Your task to perform on an android device: snooze an email in the gmail app Image 0: 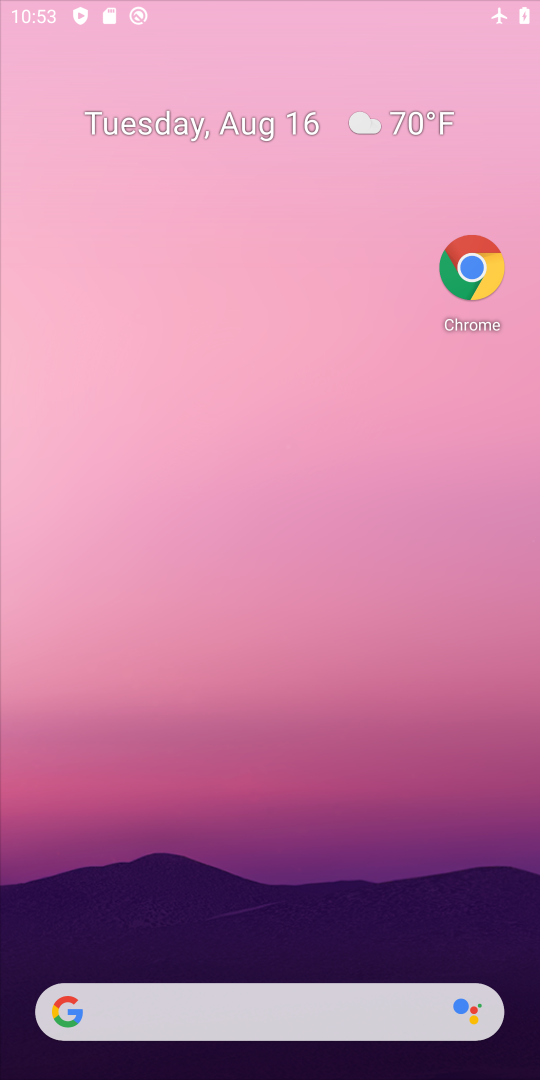
Step 0: press back button
Your task to perform on an android device: snooze an email in the gmail app Image 1: 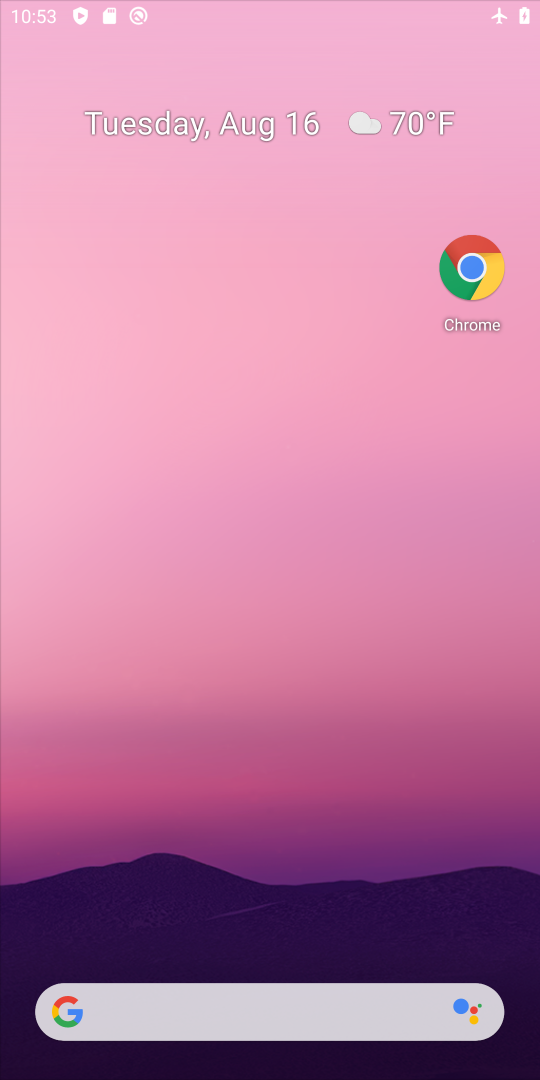
Step 1: drag from (242, 936) to (315, 53)
Your task to perform on an android device: snooze an email in the gmail app Image 2: 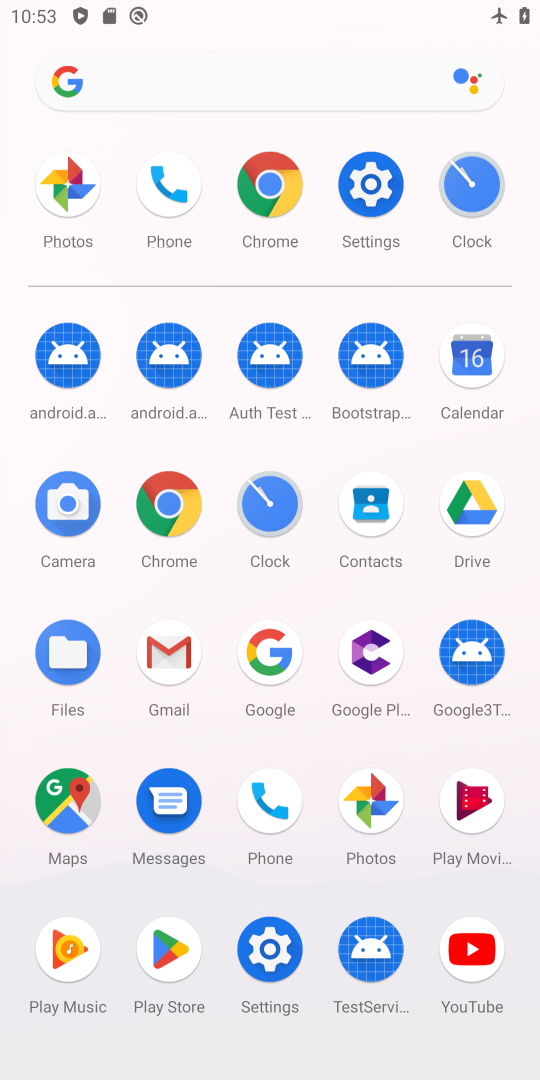
Step 2: click (155, 693)
Your task to perform on an android device: snooze an email in the gmail app Image 3: 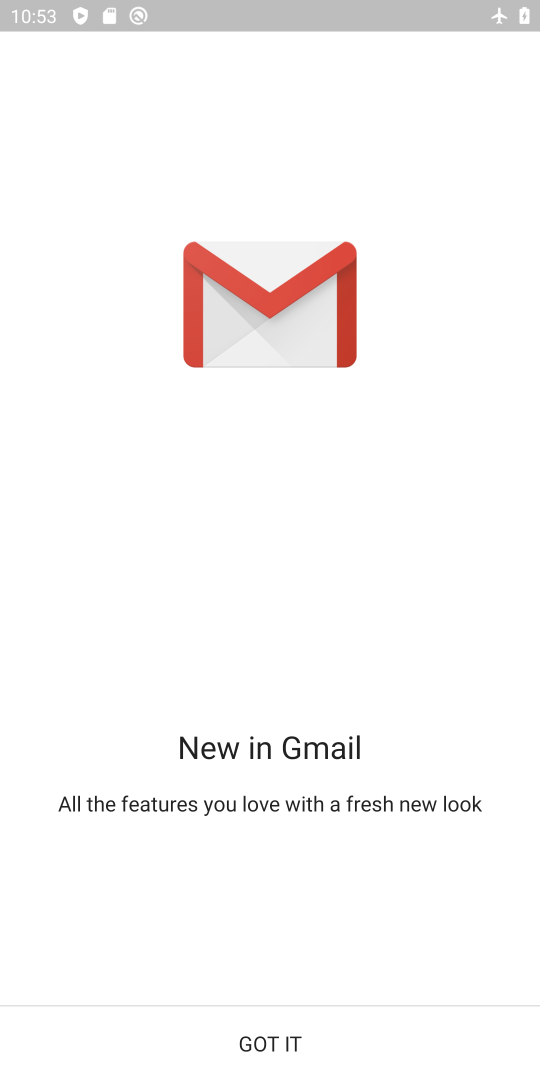
Step 3: click (263, 1021)
Your task to perform on an android device: snooze an email in the gmail app Image 4: 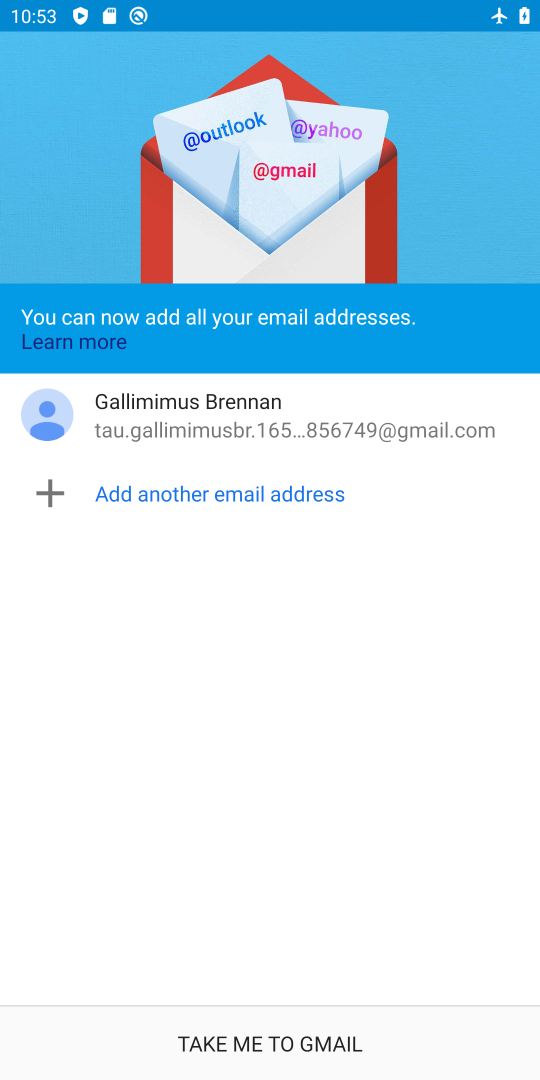
Step 4: click (280, 1060)
Your task to perform on an android device: snooze an email in the gmail app Image 5: 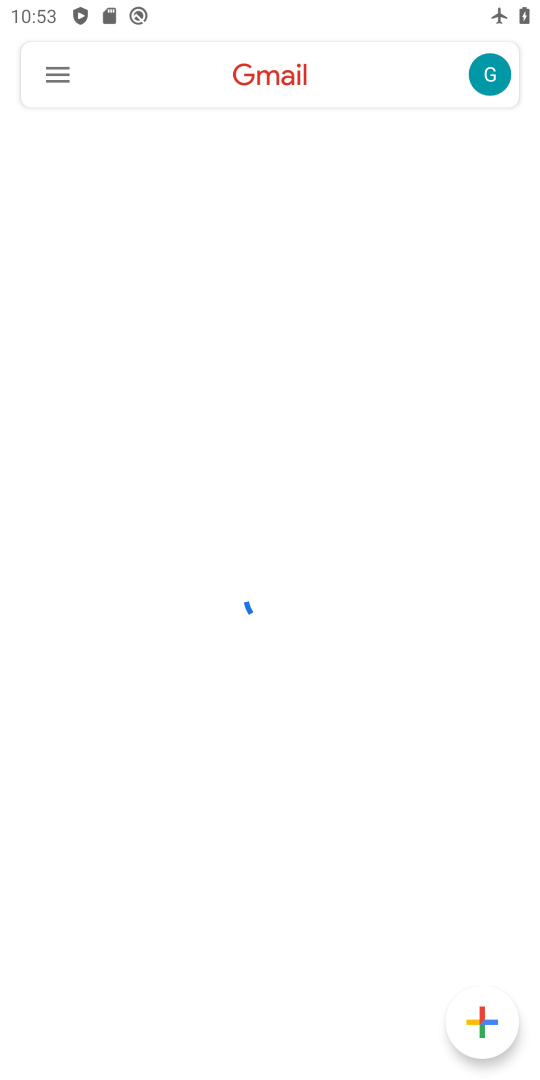
Step 5: click (63, 77)
Your task to perform on an android device: snooze an email in the gmail app Image 6: 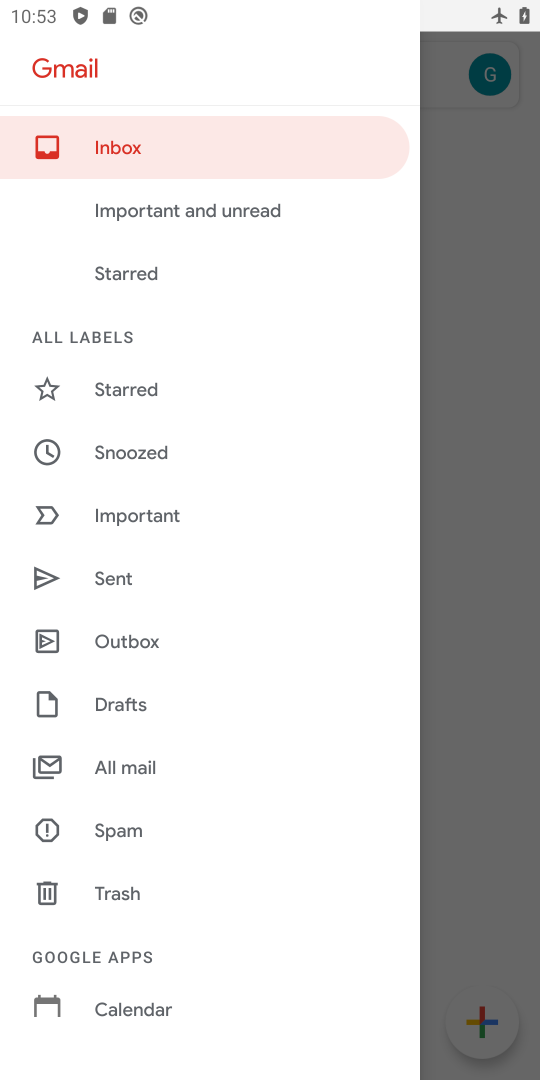
Step 6: click (98, 468)
Your task to perform on an android device: snooze an email in the gmail app Image 7: 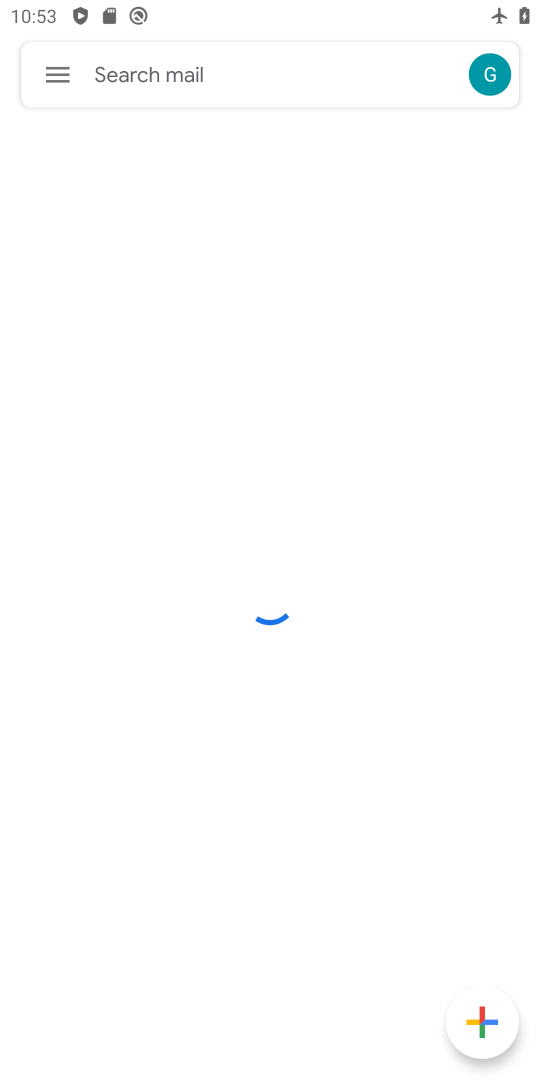
Step 7: task complete